Your task to perform on an android device: install app "ZOOM Cloud Meetings" Image 0: 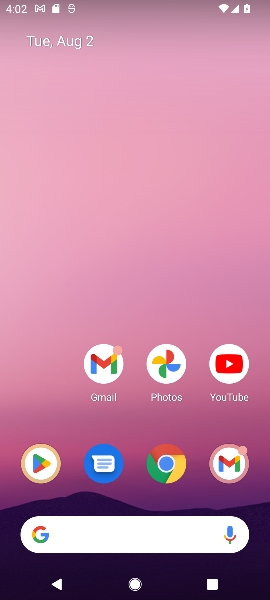
Step 0: click (33, 466)
Your task to perform on an android device: install app "ZOOM Cloud Meetings" Image 1: 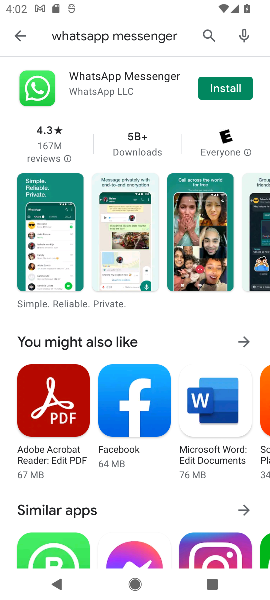
Step 1: click (207, 33)
Your task to perform on an android device: install app "ZOOM Cloud Meetings" Image 2: 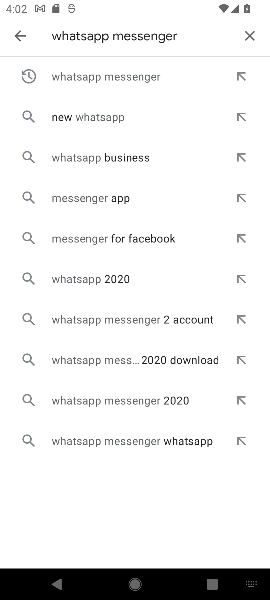
Step 2: click (248, 36)
Your task to perform on an android device: install app "ZOOM Cloud Meetings" Image 3: 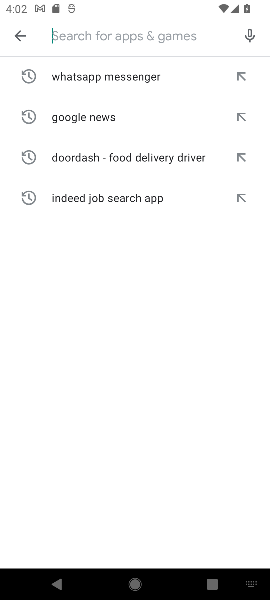
Step 3: type "ZOOM Cloud Meetings"
Your task to perform on an android device: install app "ZOOM Cloud Meetings" Image 4: 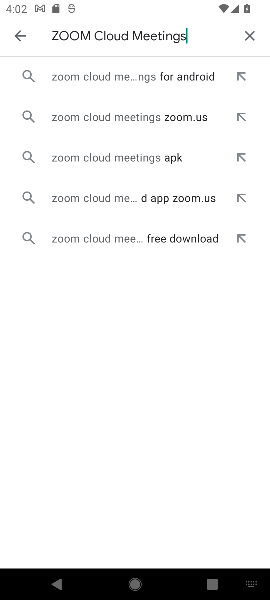
Step 4: click (176, 72)
Your task to perform on an android device: install app "ZOOM Cloud Meetings" Image 5: 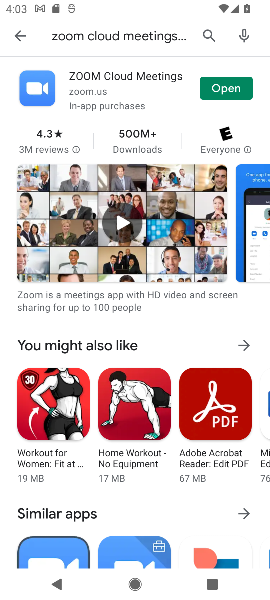
Step 5: task complete